Your task to perform on an android device: change the clock display to show seconds Image 0: 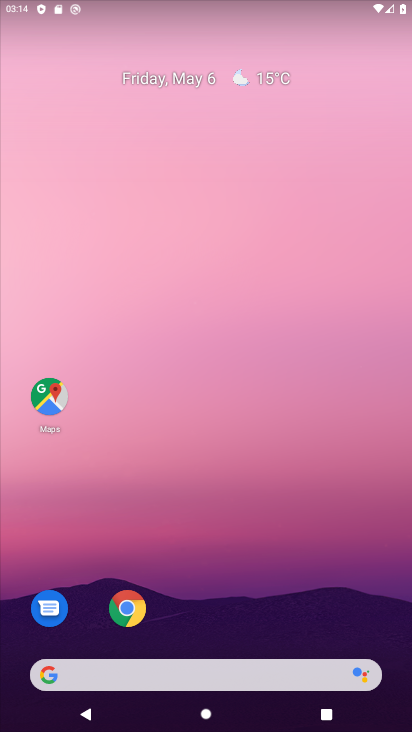
Step 0: drag from (209, 673) to (229, 272)
Your task to perform on an android device: change the clock display to show seconds Image 1: 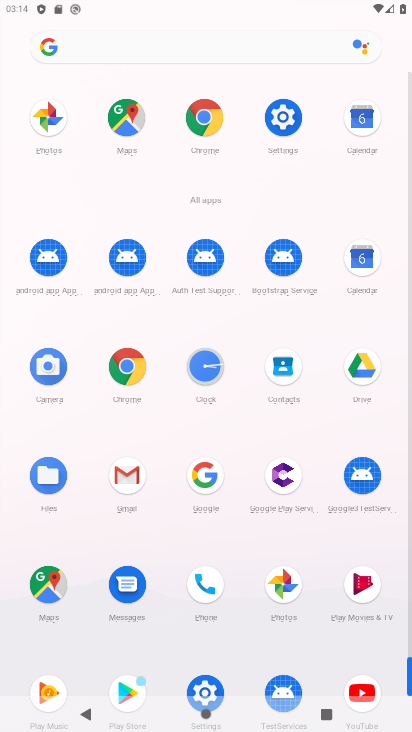
Step 1: click (208, 375)
Your task to perform on an android device: change the clock display to show seconds Image 2: 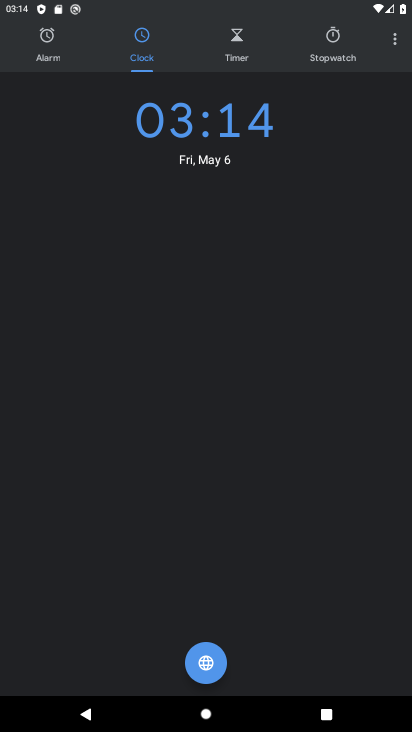
Step 2: click (388, 48)
Your task to perform on an android device: change the clock display to show seconds Image 3: 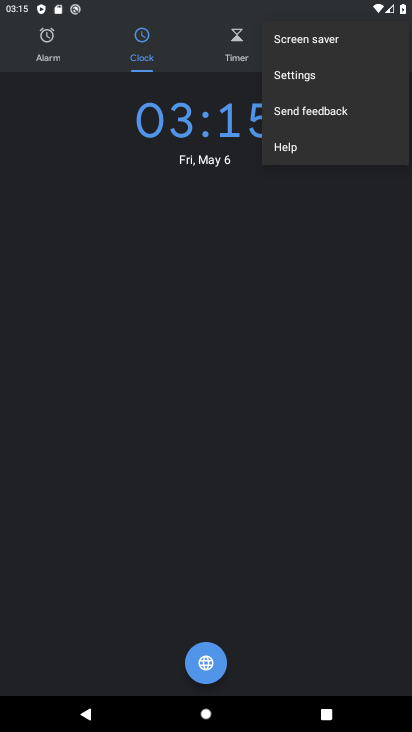
Step 3: click (309, 74)
Your task to perform on an android device: change the clock display to show seconds Image 4: 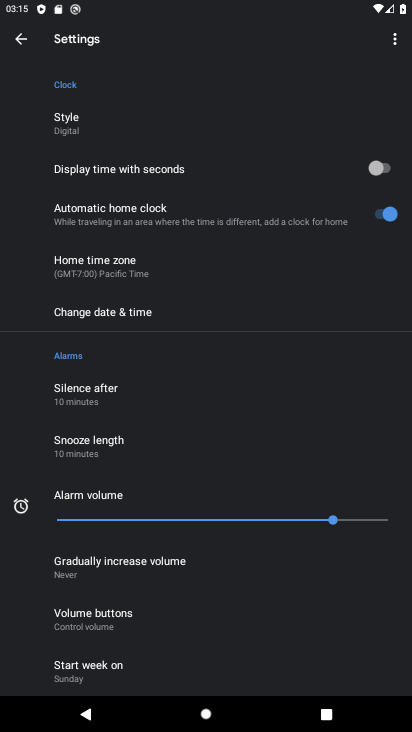
Step 4: click (376, 158)
Your task to perform on an android device: change the clock display to show seconds Image 5: 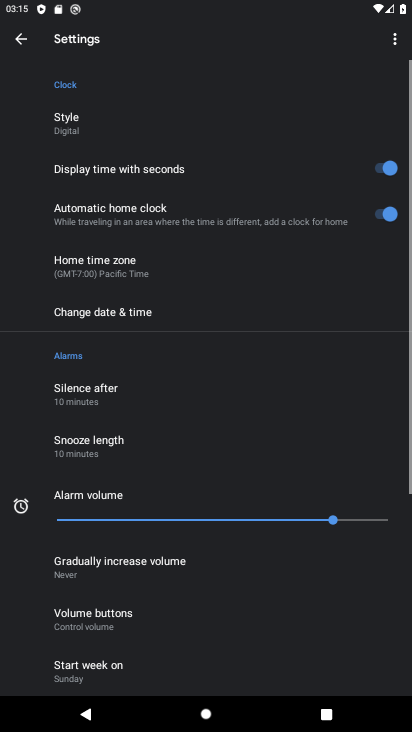
Step 5: task complete